Your task to perform on an android device: check android version Image 0: 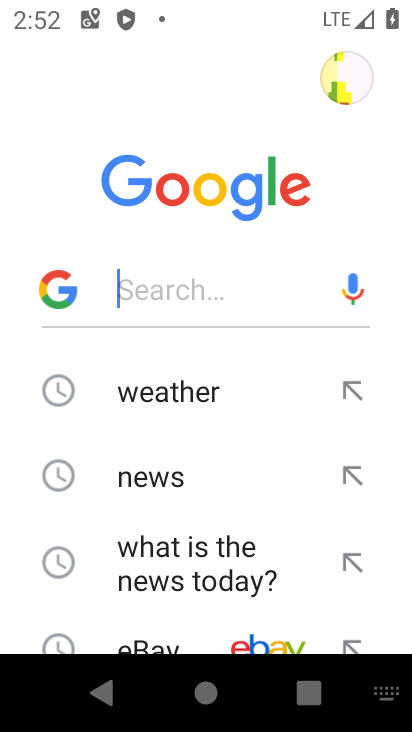
Step 0: press home button
Your task to perform on an android device: check android version Image 1: 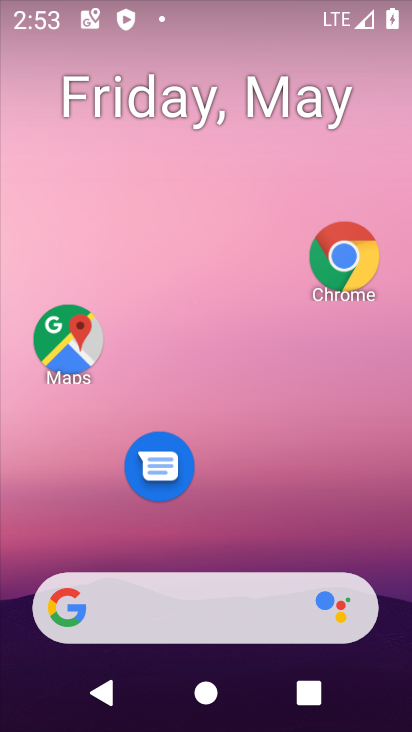
Step 1: drag from (284, 546) to (206, 2)
Your task to perform on an android device: check android version Image 2: 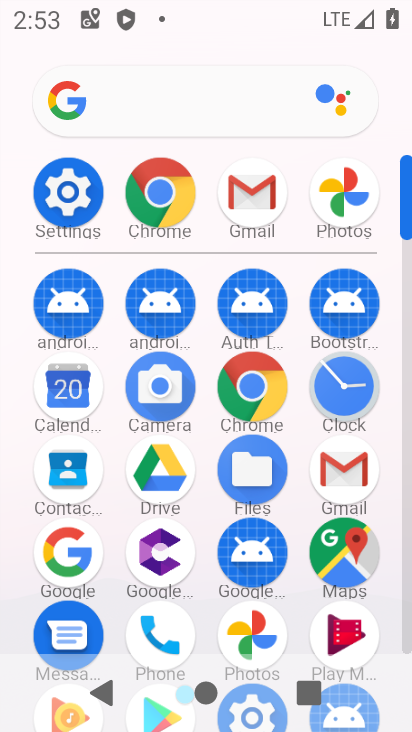
Step 2: click (63, 200)
Your task to perform on an android device: check android version Image 3: 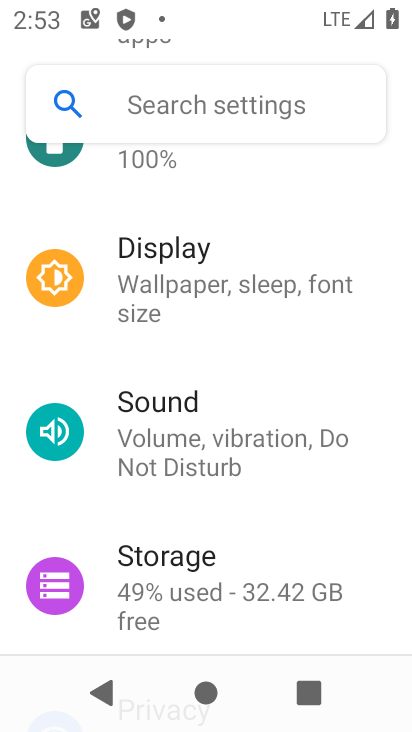
Step 3: drag from (300, 635) to (206, 227)
Your task to perform on an android device: check android version Image 4: 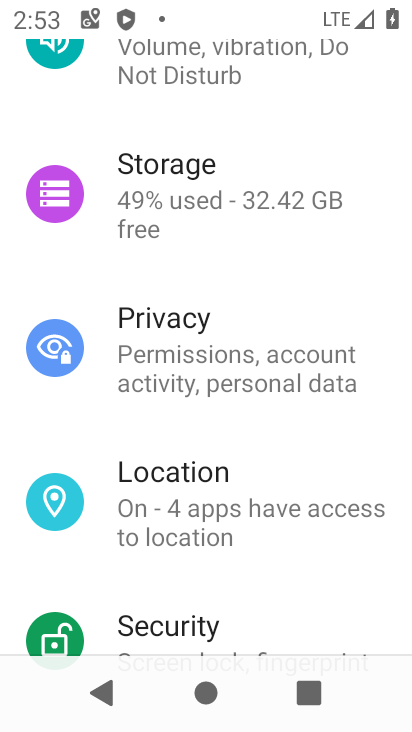
Step 4: drag from (333, 549) to (269, 137)
Your task to perform on an android device: check android version Image 5: 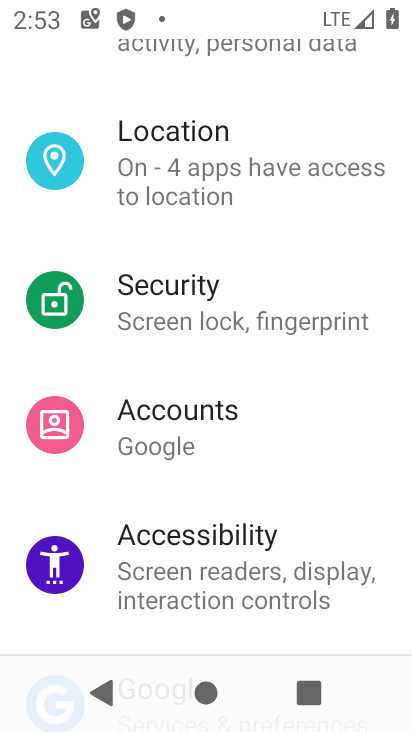
Step 5: drag from (316, 495) to (258, 132)
Your task to perform on an android device: check android version Image 6: 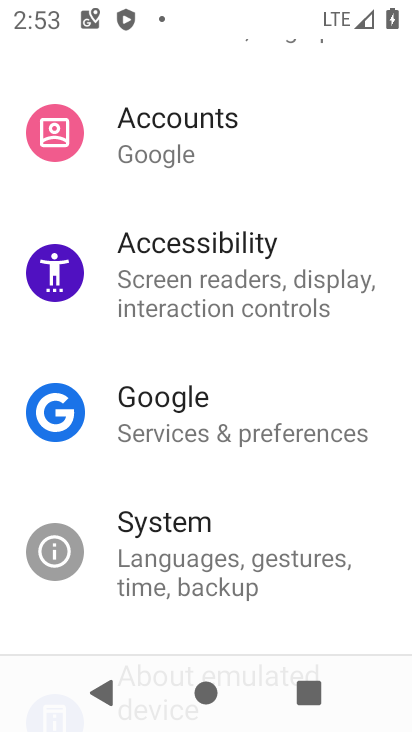
Step 6: drag from (305, 548) to (279, 188)
Your task to perform on an android device: check android version Image 7: 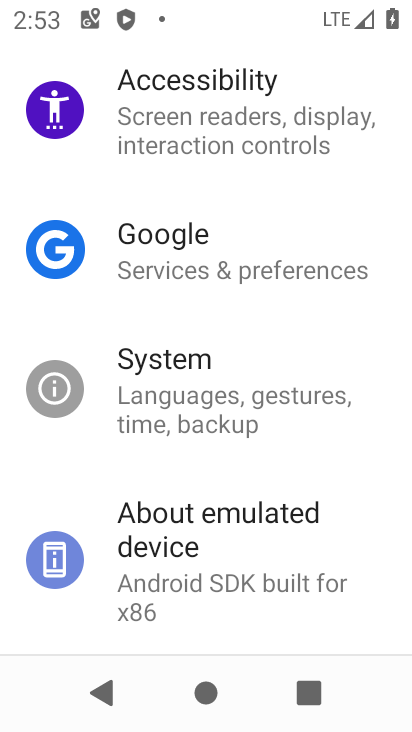
Step 7: click (161, 548)
Your task to perform on an android device: check android version Image 8: 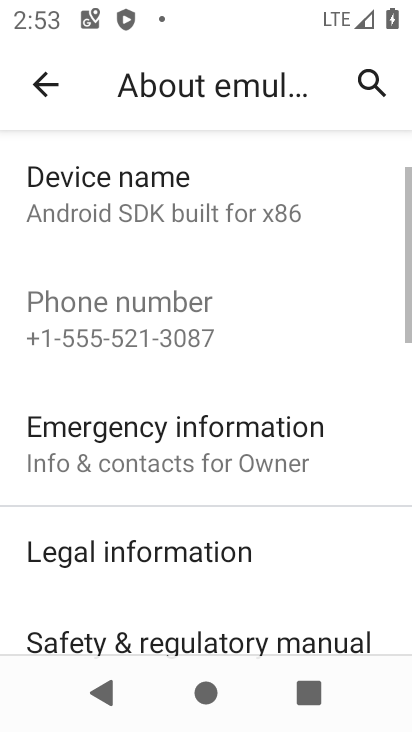
Step 8: drag from (345, 522) to (326, 204)
Your task to perform on an android device: check android version Image 9: 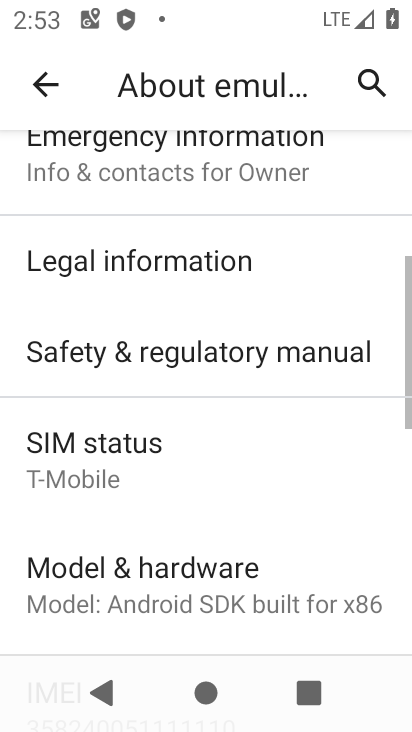
Step 9: drag from (338, 482) to (331, 179)
Your task to perform on an android device: check android version Image 10: 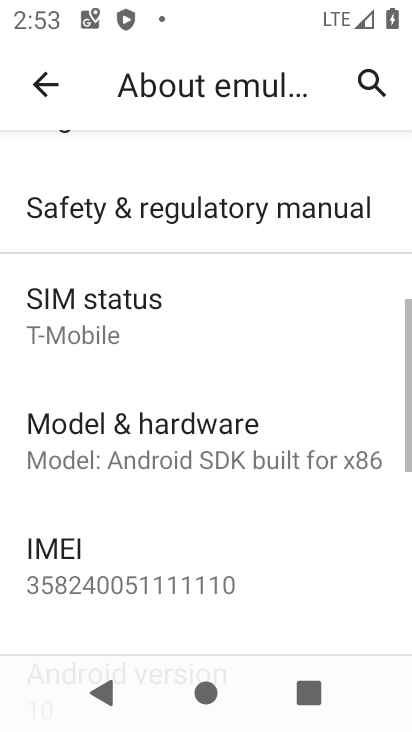
Step 10: drag from (313, 539) to (322, 138)
Your task to perform on an android device: check android version Image 11: 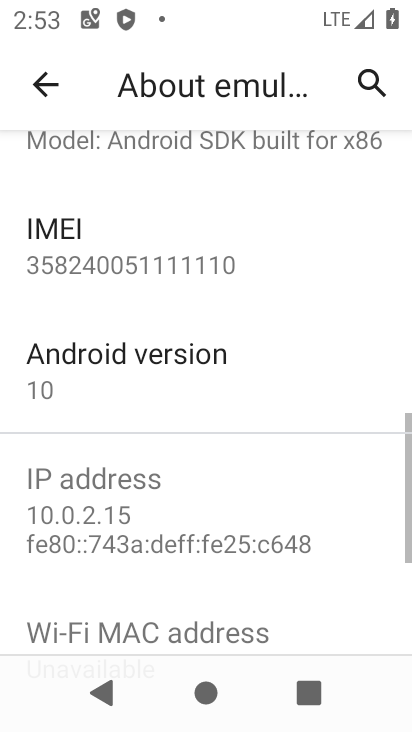
Step 11: click (203, 350)
Your task to perform on an android device: check android version Image 12: 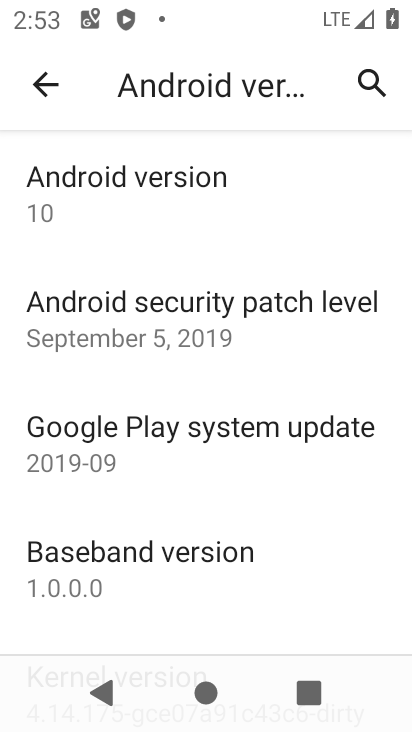
Step 12: click (127, 187)
Your task to perform on an android device: check android version Image 13: 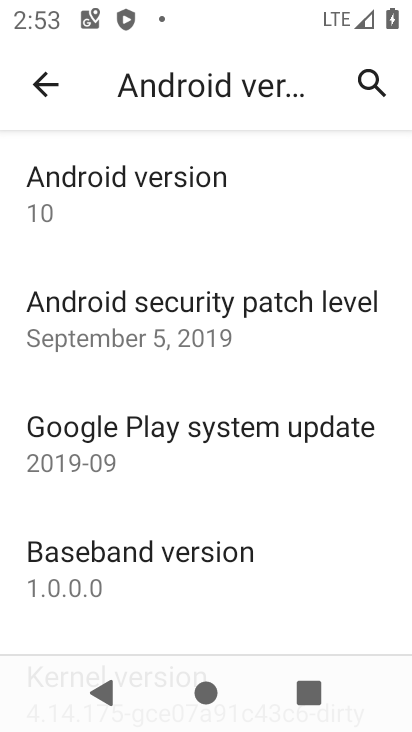
Step 13: task complete